Your task to perform on an android device: check storage Image 0: 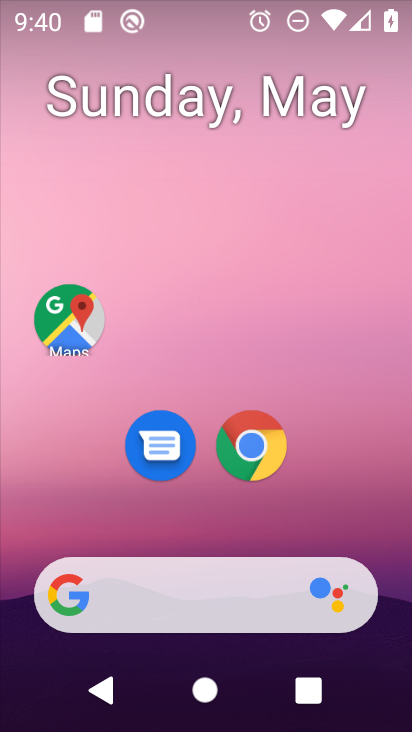
Step 0: drag from (221, 533) to (246, 342)
Your task to perform on an android device: check storage Image 1: 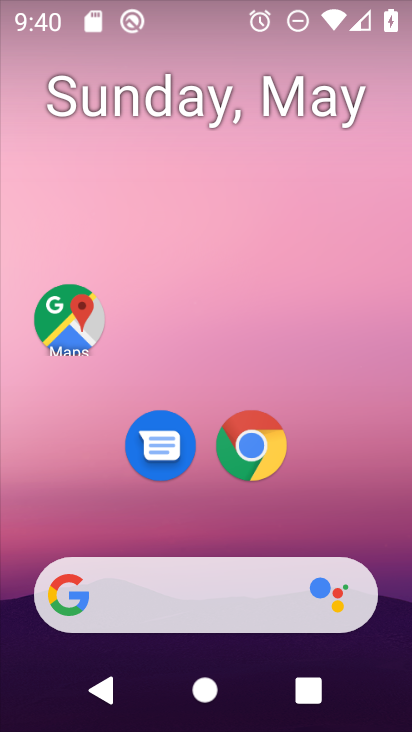
Step 1: drag from (254, 576) to (281, 330)
Your task to perform on an android device: check storage Image 2: 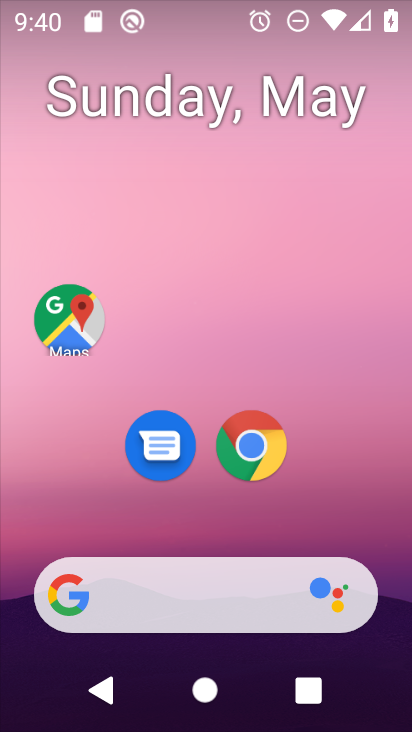
Step 2: drag from (211, 619) to (262, 247)
Your task to perform on an android device: check storage Image 3: 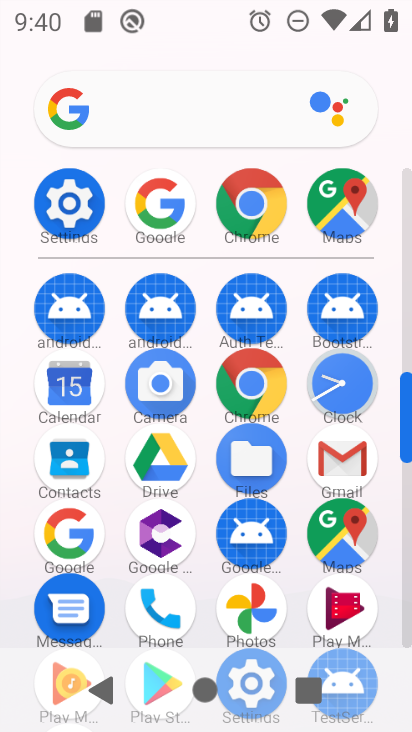
Step 3: click (72, 215)
Your task to perform on an android device: check storage Image 4: 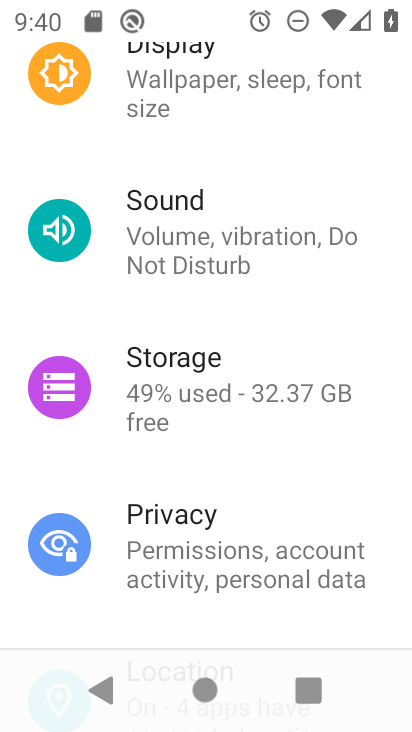
Step 4: drag from (176, 381) to (180, 243)
Your task to perform on an android device: check storage Image 5: 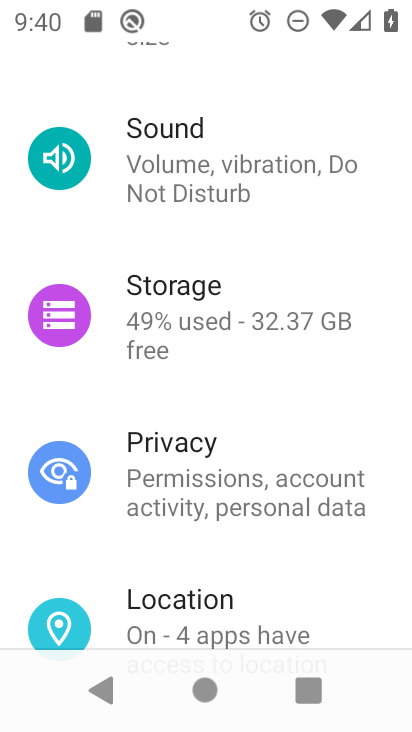
Step 5: click (182, 312)
Your task to perform on an android device: check storage Image 6: 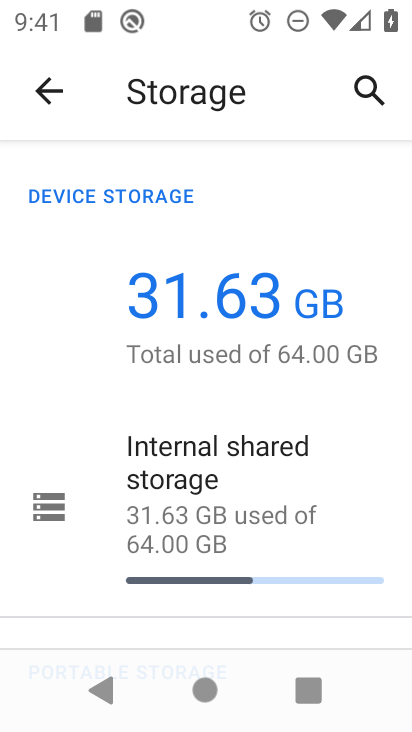
Step 6: click (283, 501)
Your task to perform on an android device: check storage Image 7: 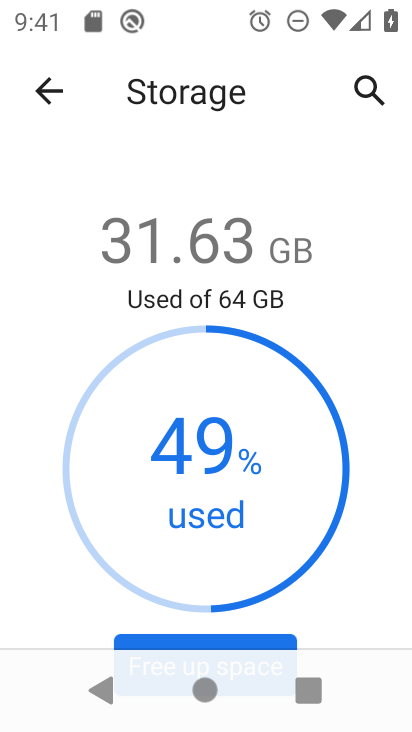
Step 7: task complete